Your task to perform on an android device: Search for "bose soundlink" on newegg, select the first entry, and add it to the cart. Image 0: 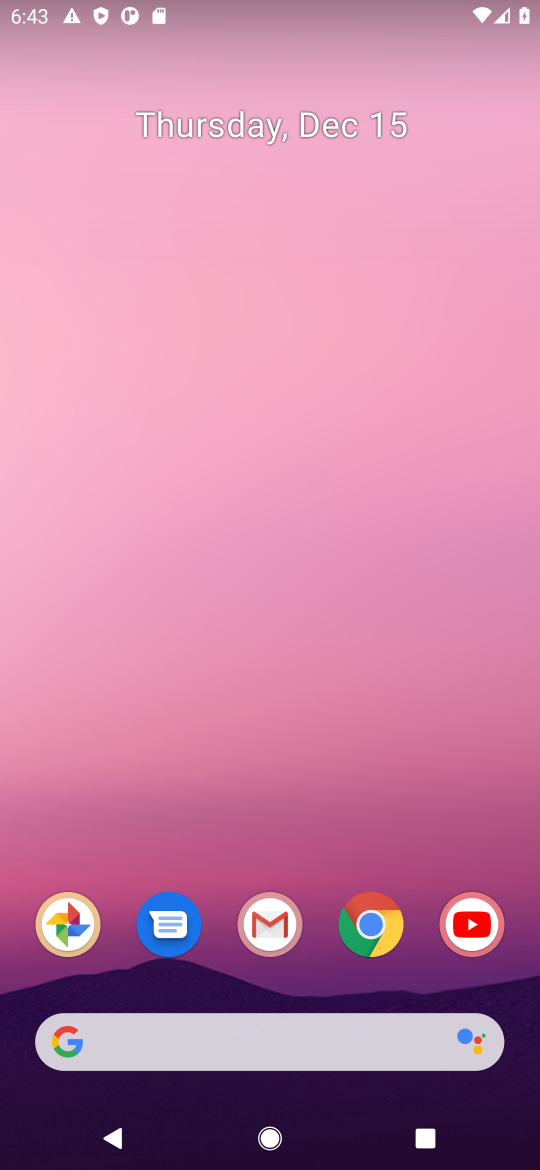
Step 0: click (343, 929)
Your task to perform on an android device: Search for "bose soundlink" on newegg, select the first entry, and add it to the cart. Image 1: 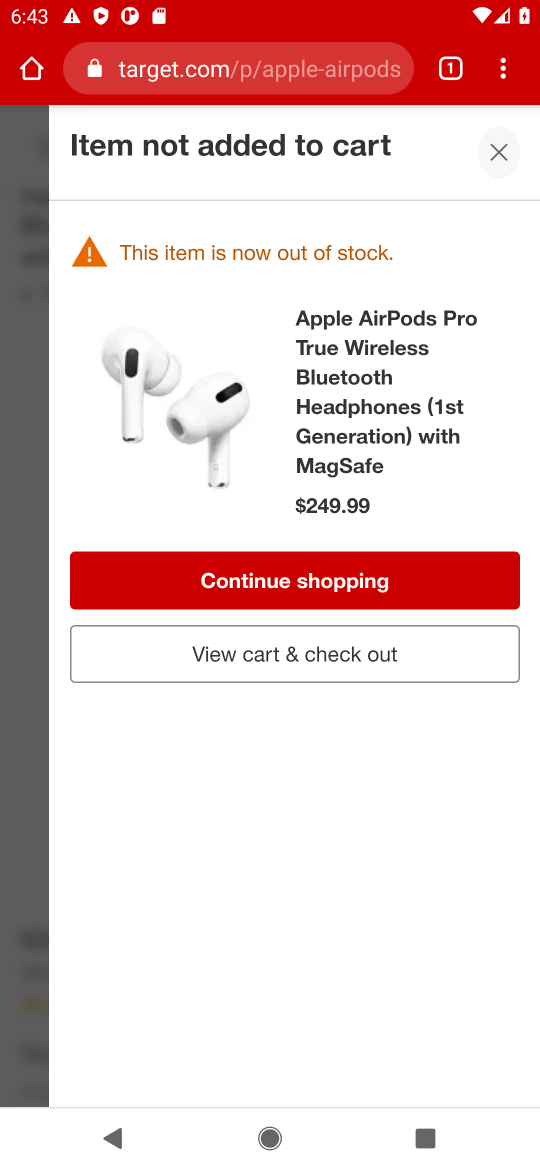
Step 1: click (314, 73)
Your task to perform on an android device: Search for "bose soundlink" on newegg, select the first entry, and add it to the cart. Image 2: 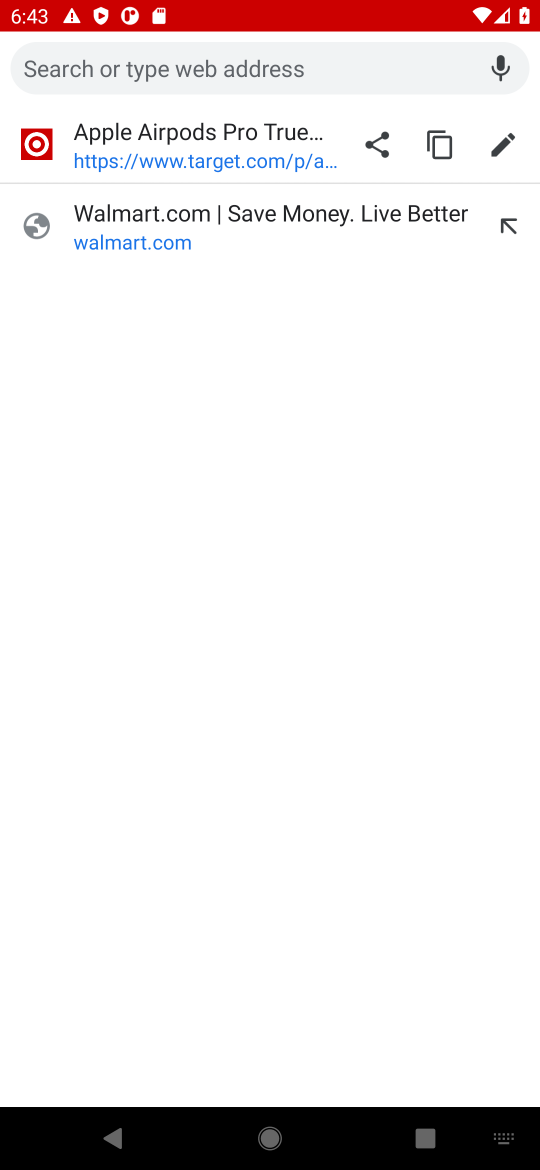
Step 2: type "newegg"
Your task to perform on an android device: Search for "bose soundlink" on newegg, select the first entry, and add it to the cart. Image 3: 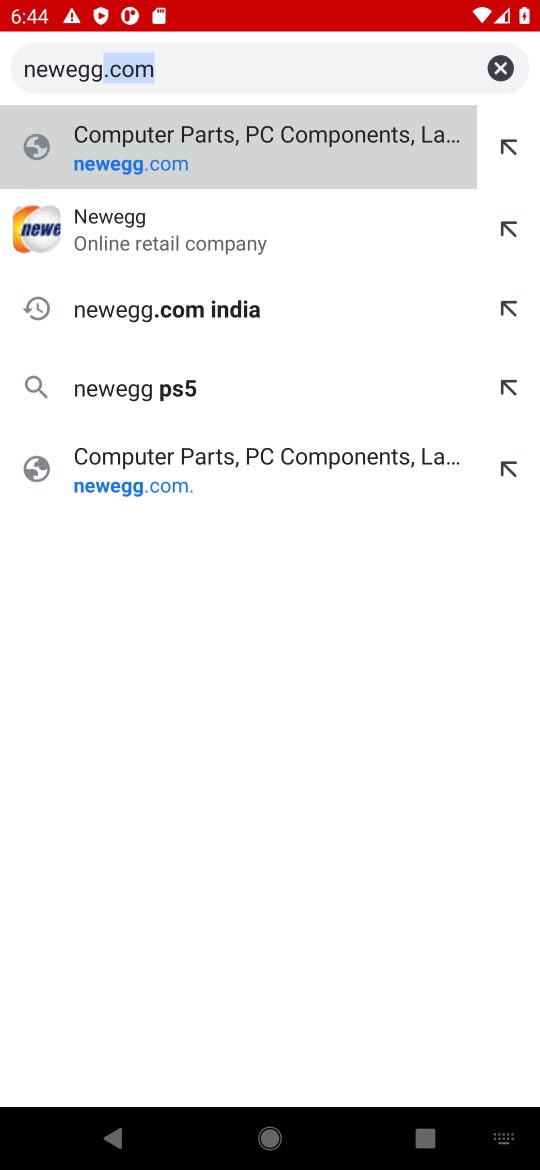
Step 3: click (88, 221)
Your task to perform on an android device: Search for "bose soundlink" on newegg, select the first entry, and add it to the cart. Image 4: 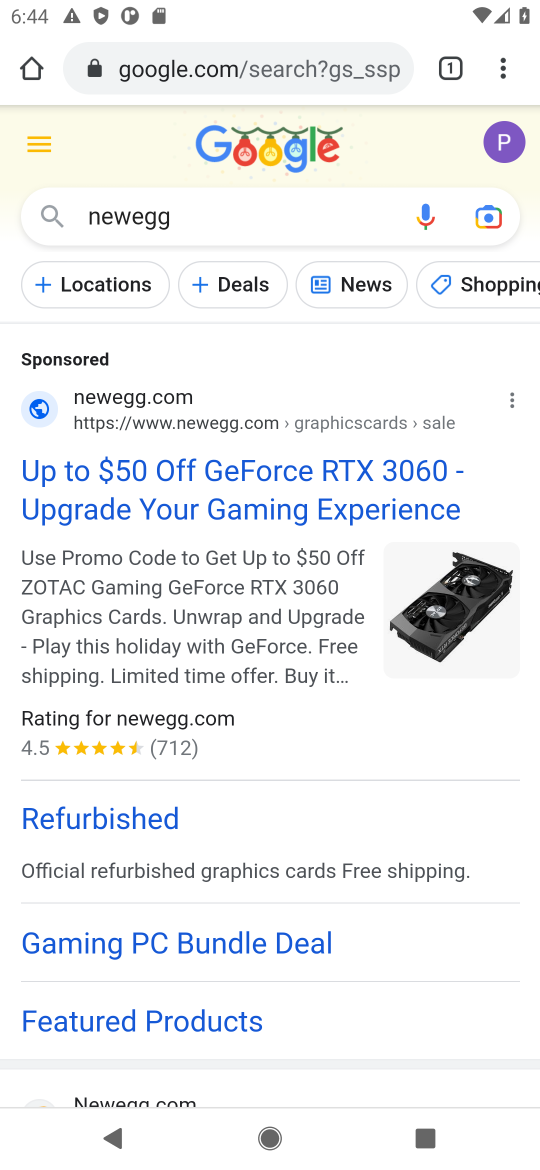
Step 4: click (211, 480)
Your task to perform on an android device: Search for "bose soundlink" on newegg, select the first entry, and add it to the cart. Image 5: 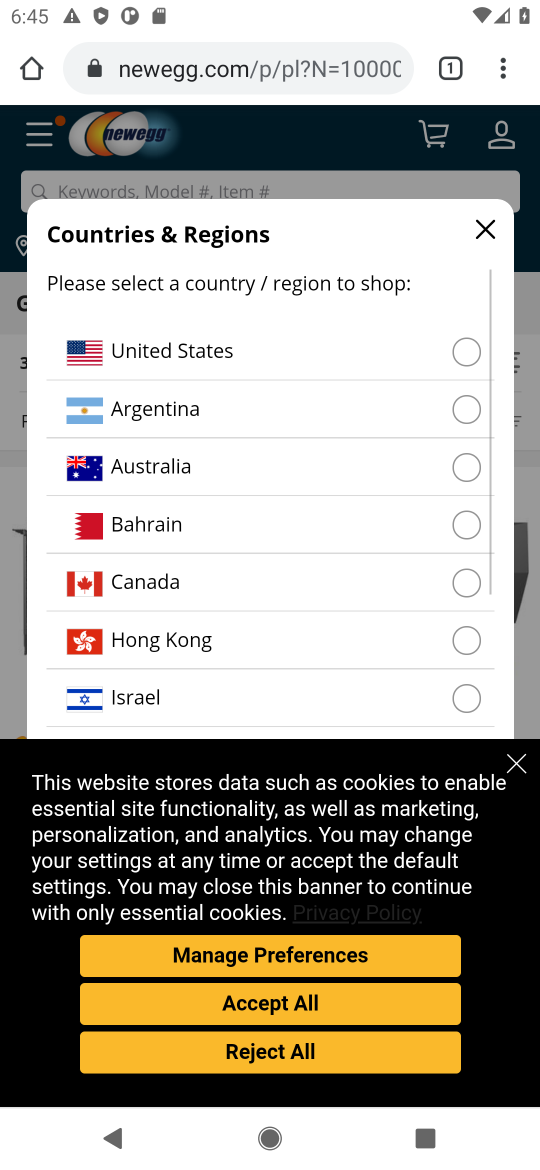
Step 5: click (241, 998)
Your task to perform on an android device: Search for "bose soundlink" on newegg, select the first entry, and add it to the cart. Image 6: 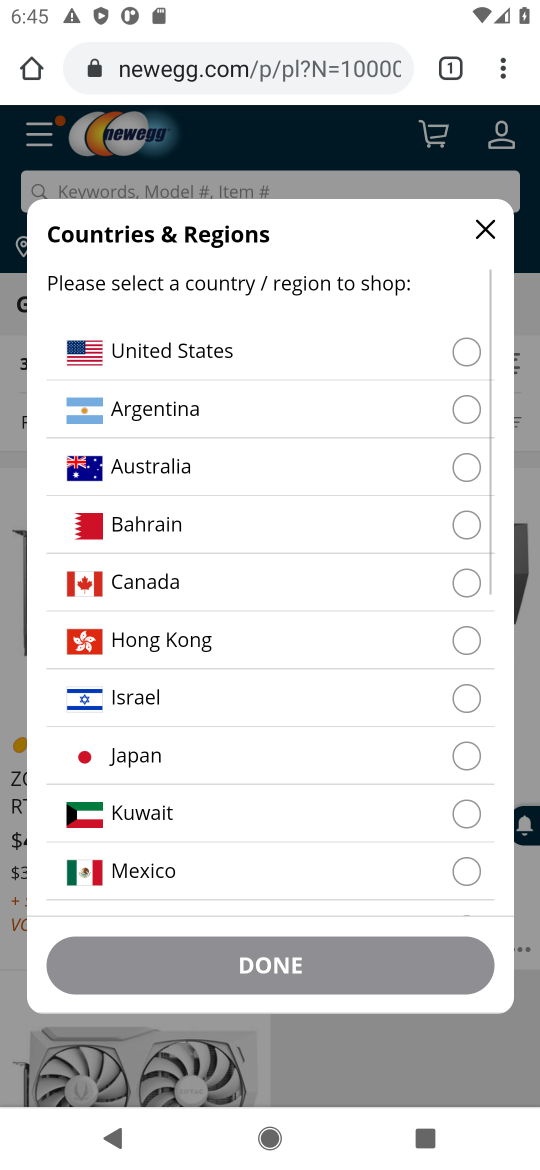
Step 6: click (111, 820)
Your task to perform on an android device: Search for "bose soundlink" on newegg, select the first entry, and add it to the cart. Image 7: 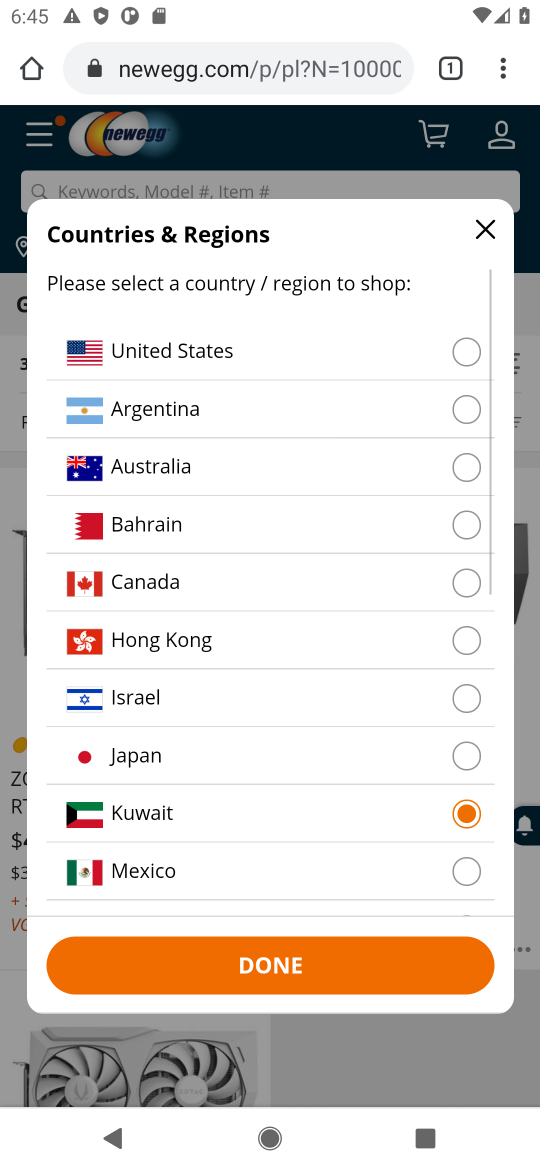
Step 7: click (413, 959)
Your task to perform on an android device: Search for "bose soundlink" on newegg, select the first entry, and add it to the cart. Image 8: 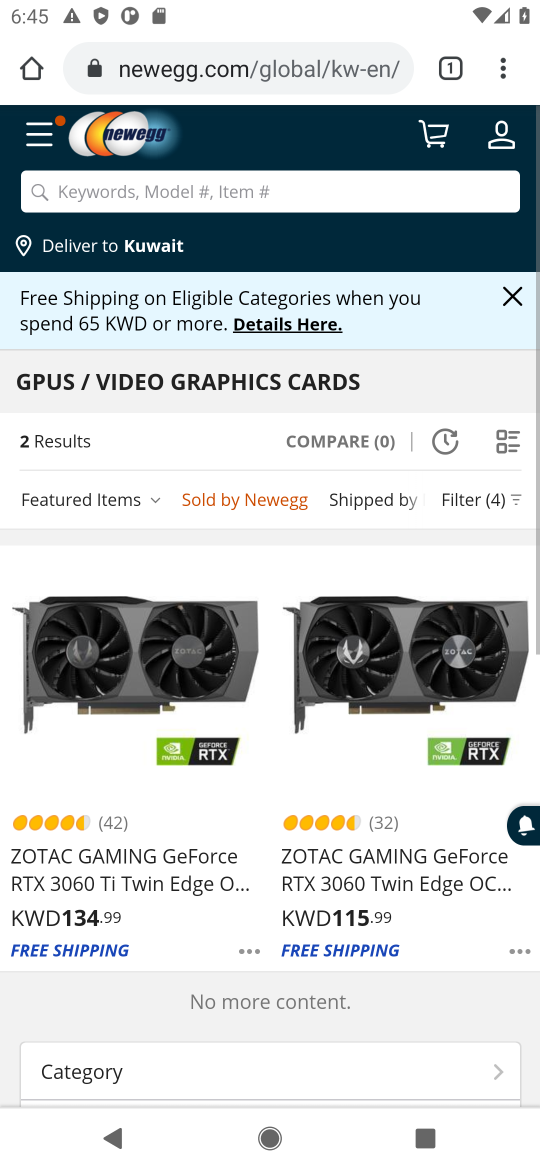
Step 8: click (274, 187)
Your task to perform on an android device: Search for "bose soundlink" on newegg, select the first entry, and add it to the cart. Image 9: 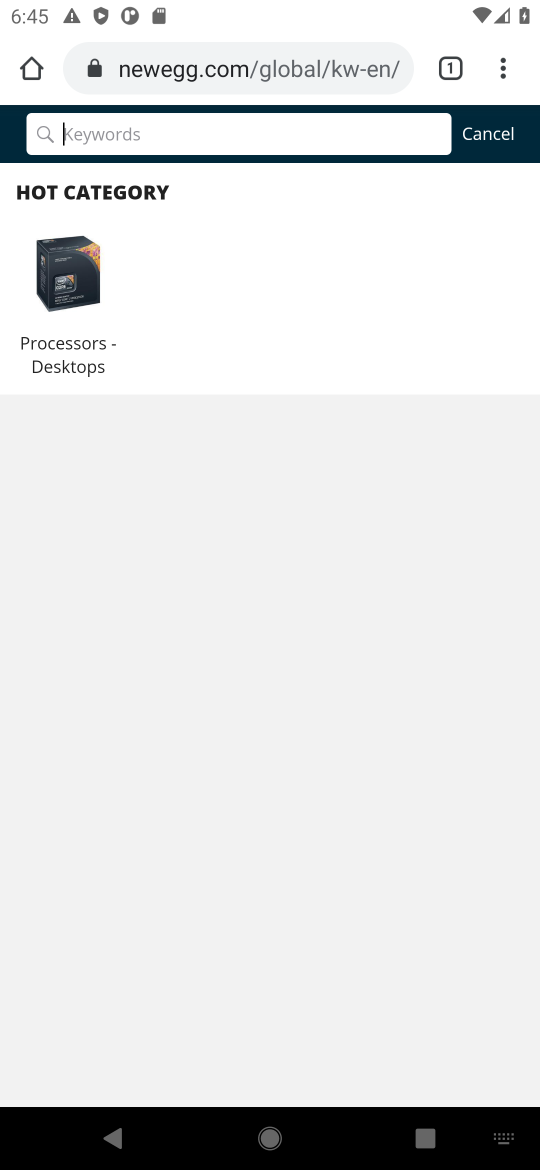
Step 9: type "bose soundlink"
Your task to perform on an android device: Search for "bose soundlink" on newegg, select the first entry, and add it to the cart. Image 10: 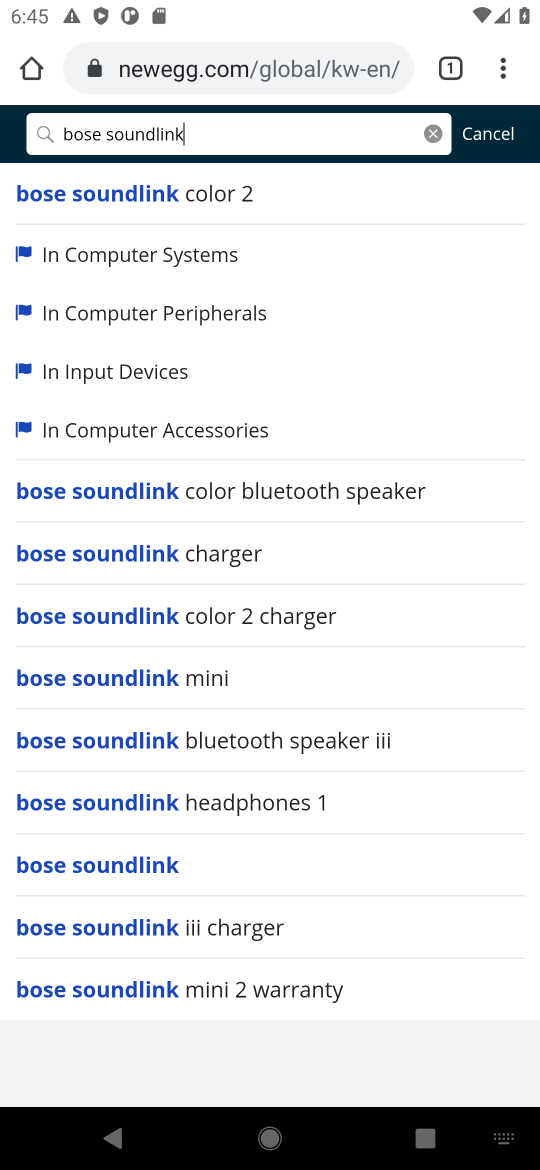
Step 10: click (111, 867)
Your task to perform on an android device: Search for "bose soundlink" on newegg, select the first entry, and add it to the cart. Image 11: 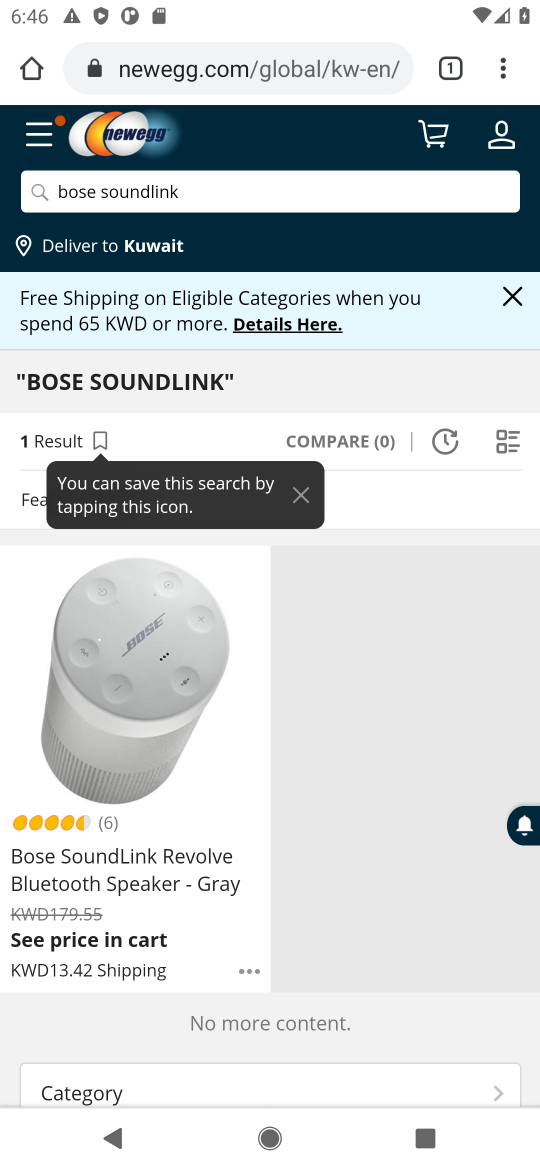
Step 11: click (40, 924)
Your task to perform on an android device: Search for "bose soundlink" on newegg, select the first entry, and add it to the cart. Image 12: 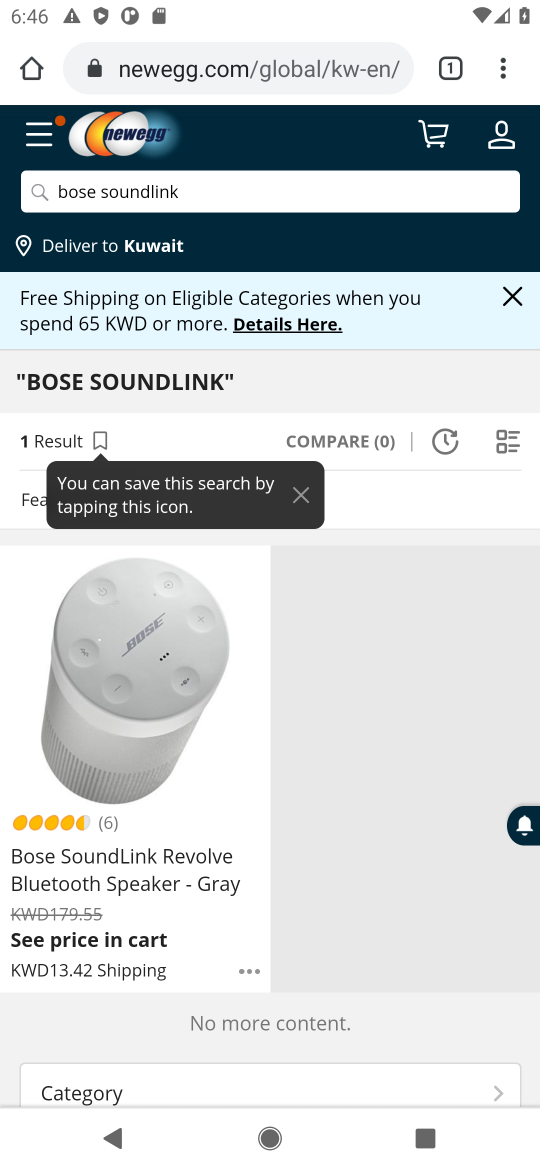
Step 12: click (40, 924)
Your task to perform on an android device: Search for "bose soundlink" on newegg, select the first entry, and add it to the cart. Image 13: 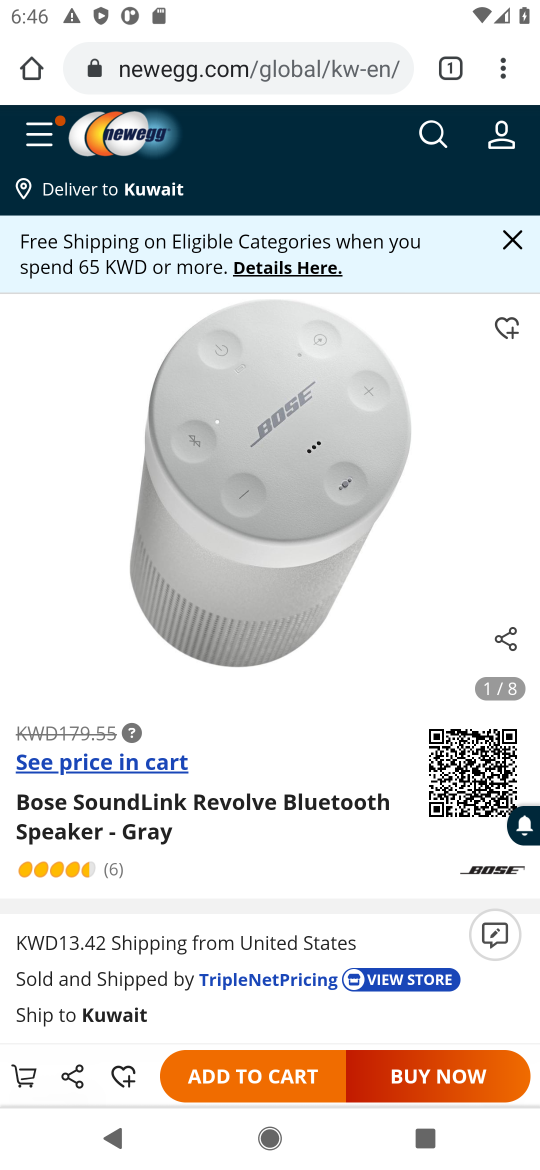
Step 13: click (254, 1081)
Your task to perform on an android device: Search for "bose soundlink" on newegg, select the first entry, and add it to the cart. Image 14: 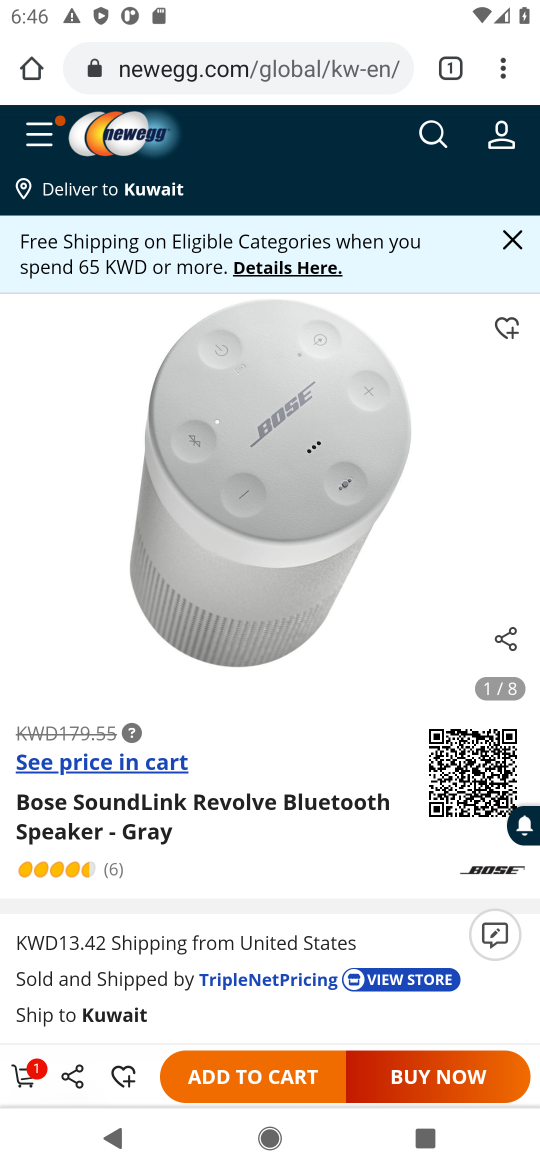
Step 14: task complete